Your task to perform on an android device: Open CNN.com Image 0: 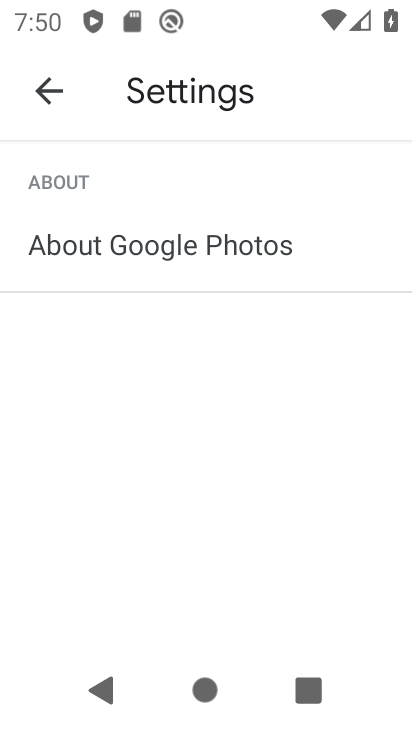
Step 0: press home button
Your task to perform on an android device: Open CNN.com Image 1: 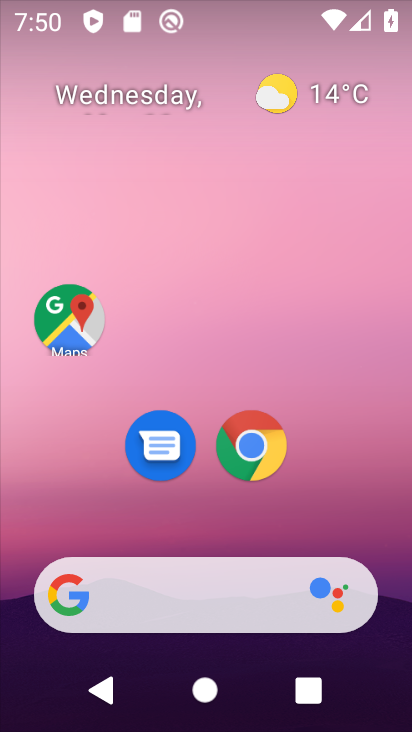
Step 1: drag from (249, 676) to (271, 97)
Your task to perform on an android device: Open CNN.com Image 2: 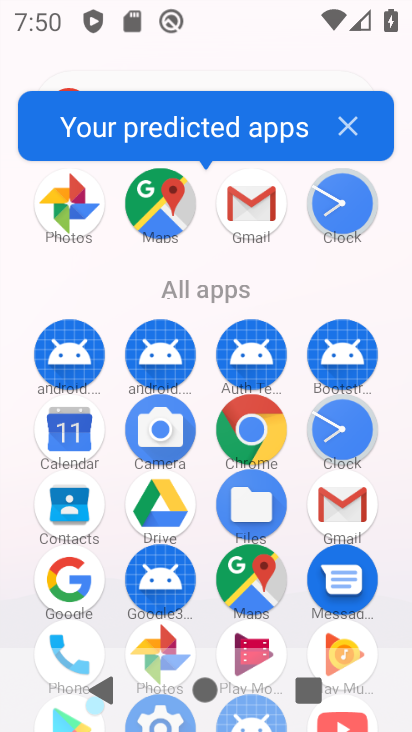
Step 2: click (243, 446)
Your task to perform on an android device: Open CNN.com Image 3: 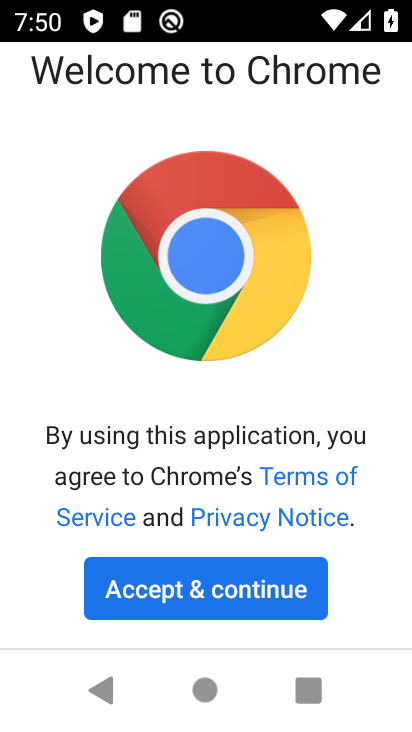
Step 3: click (247, 608)
Your task to perform on an android device: Open CNN.com Image 4: 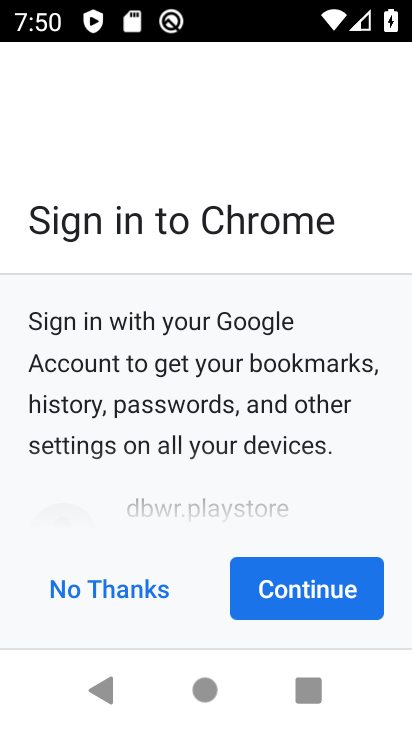
Step 4: click (302, 605)
Your task to perform on an android device: Open CNN.com Image 5: 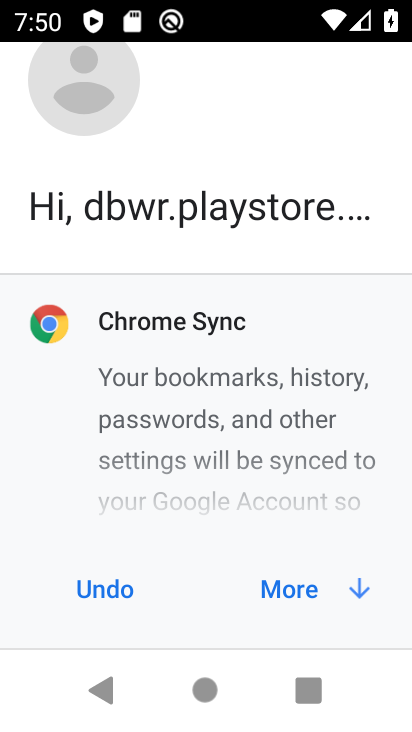
Step 5: click (331, 600)
Your task to perform on an android device: Open CNN.com Image 6: 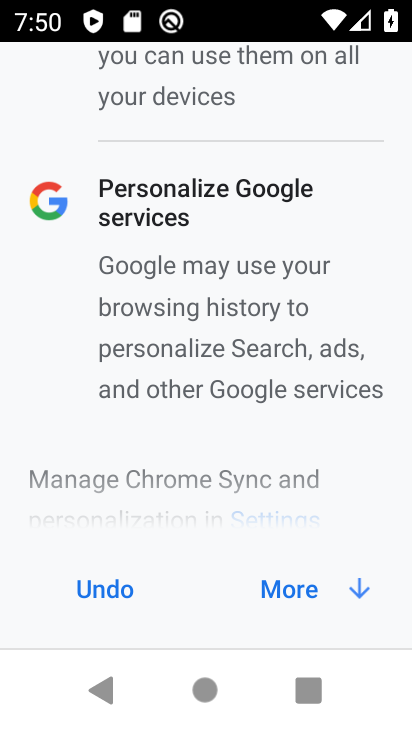
Step 6: click (296, 601)
Your task to perform on an android device: Open CNN.com Image 7: 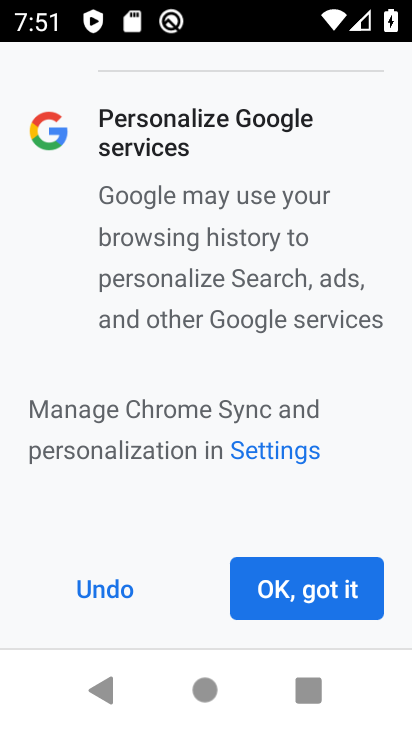
Step 7: click (284, 573)
Your task to perform on an android device: Open CNN.com Image 8: 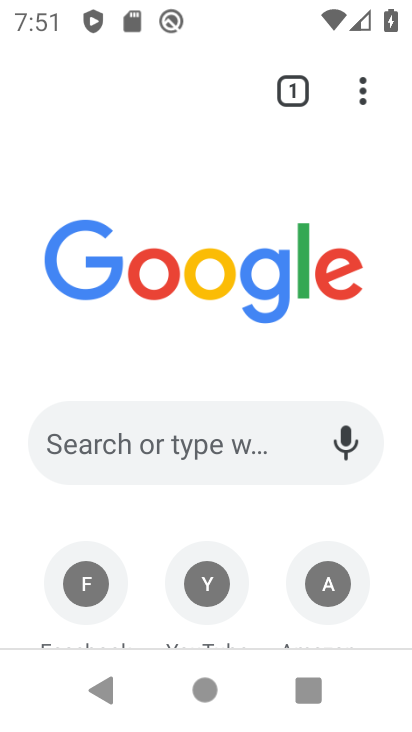
Step 8: drag from (259, 582) to (263, 331)
Your task to perform on an android device: Open CNN.com Image 9: 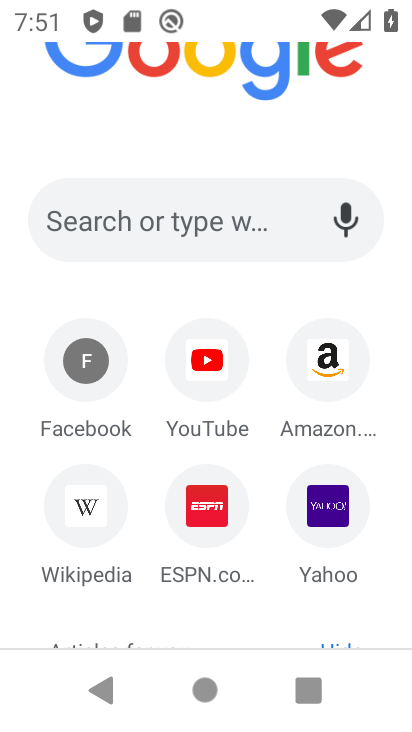
Step 9: drag from (268, 575) to (284, 405)
Your task to perform on an android device: Open CNN.com Image 10: 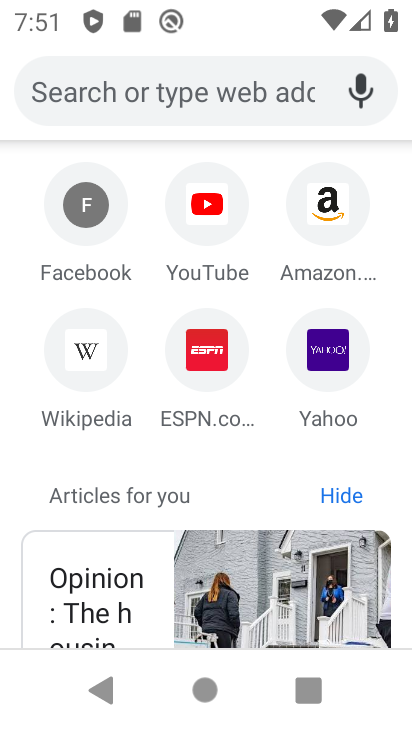
Step 10: click (149, 103)
Your task to perform on an android device: Open CNN.com Image 11: 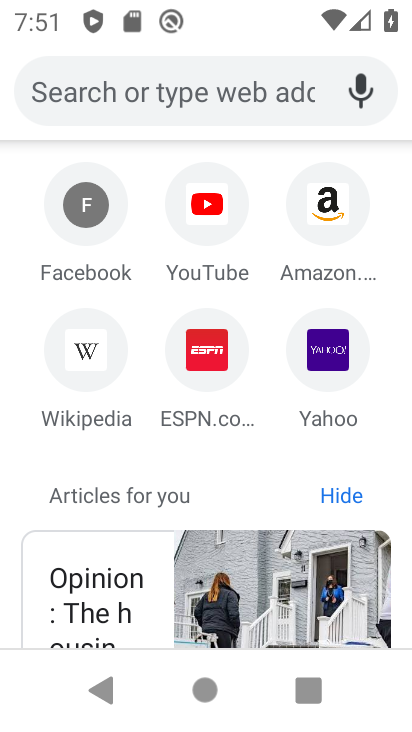
Step 11: type "cnn.com"
Your task to perform on an android device: Open CNN.com Image 12: 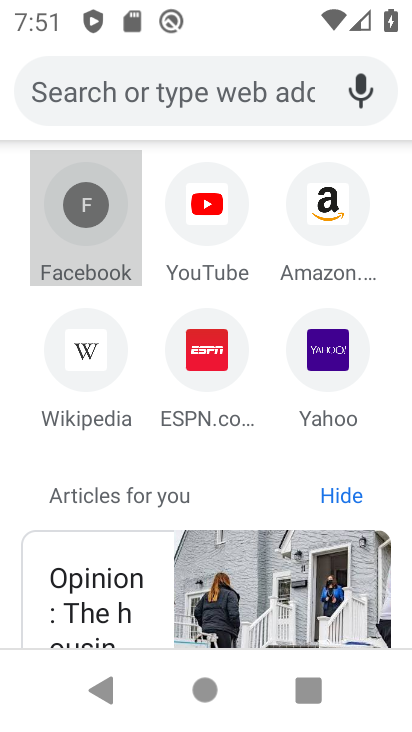
Step 12: click (303, 103)
Your task to perform on an android device: Open CNN.com Image 13: 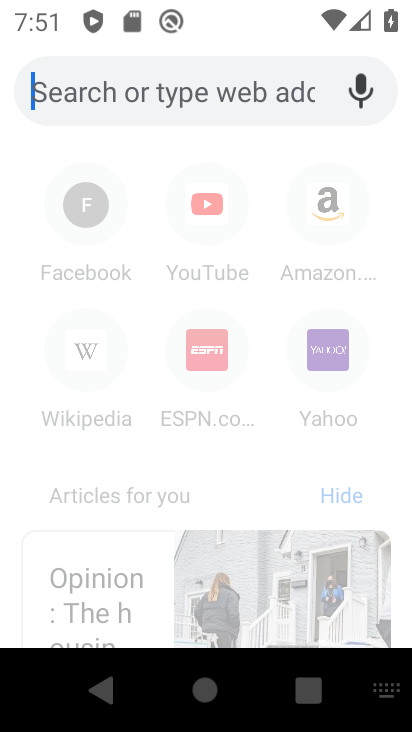
Step 13: type "cnn,com"
Your task to perform on an android device: Open CNN.com Image 14: 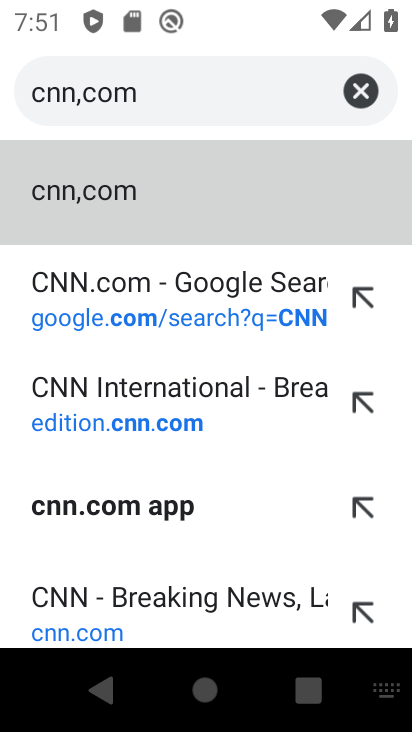
Step 14: click (165, 305)
Your task to perform on an android device: Open CNN.com Image 15: 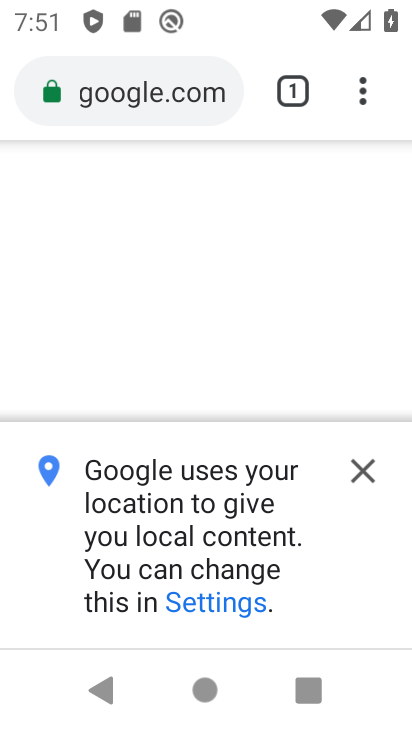
Step 15: task complete